Your task to perform on an android device: Search for Mexican restaurants on Maps Image 0: 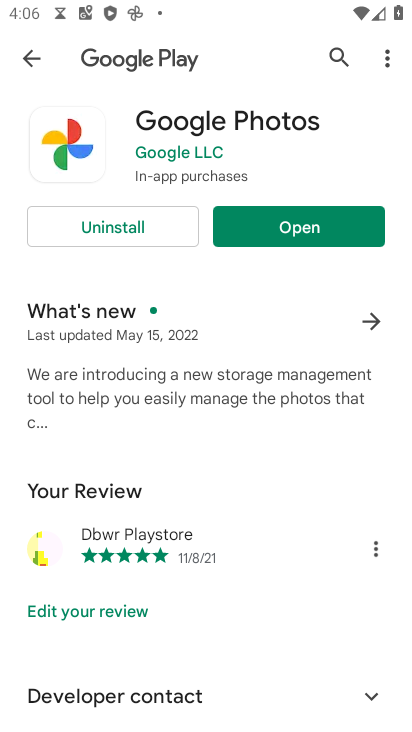
Step 0: press home button
Your task to perform on an android device: Search for Mexican restaurants on Maps Image 1: 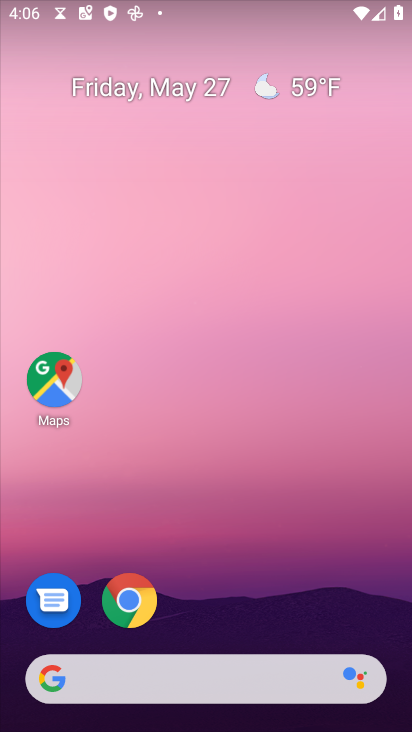
Step 1: click (54, 376)
Your task to perform on an android device: Search for Mexican restaurants on Maps Image 2: 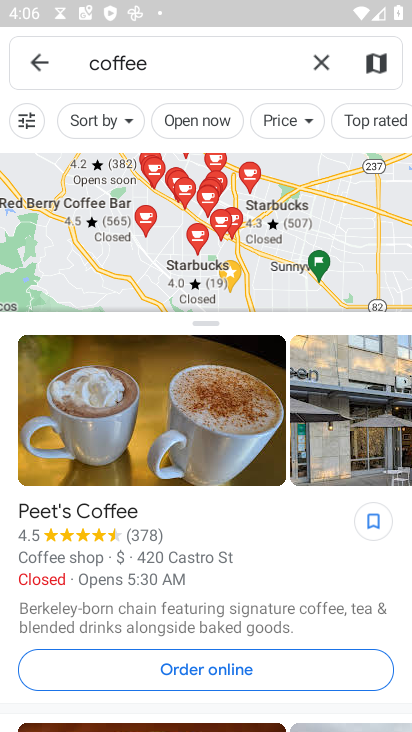
Step 2: click (322, 58)
Your task to perform on an android device: Search for Mexican restaurants on Maps Image 3: 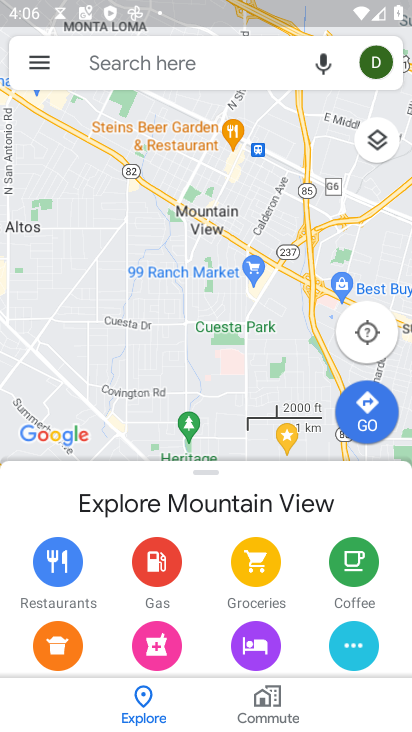
Step 3: click (227, 73)
Your task to perform on an android device: Search for Mexican restaurants on Maps Image 4: 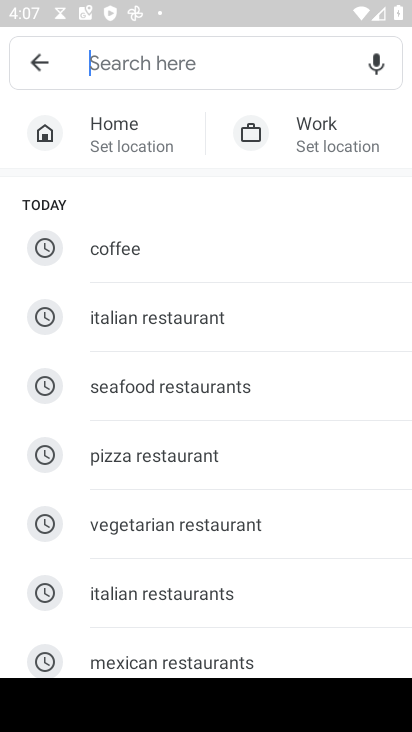
Step 4: type "Mexican restaurants"
Your task to perform on an android device: Search for Mexican restaurants on Maps Image 5: 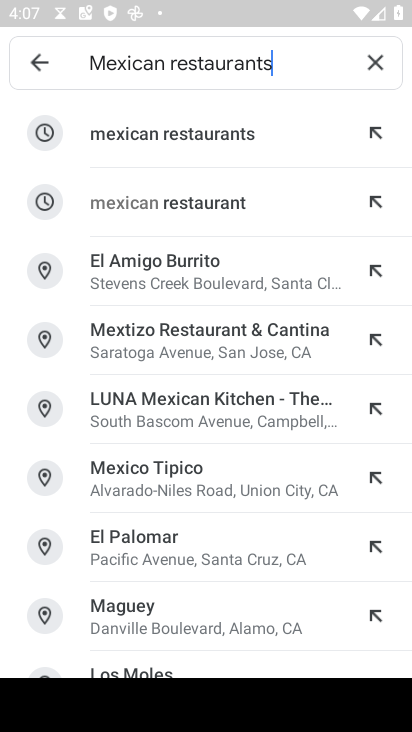
Step 5: click (226, 130)
Your task to perform on an android device: Search for Mexican restaurants on Maps Image 6: 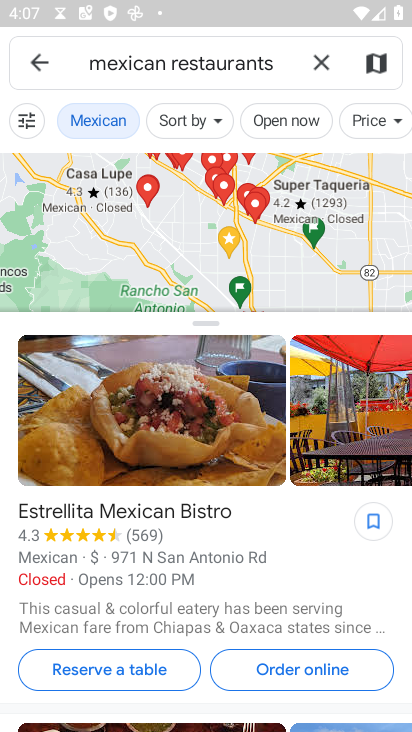
Step 6: task complete